Your task to perform on an android device: What's the weather going to be this weekend? Image 0: 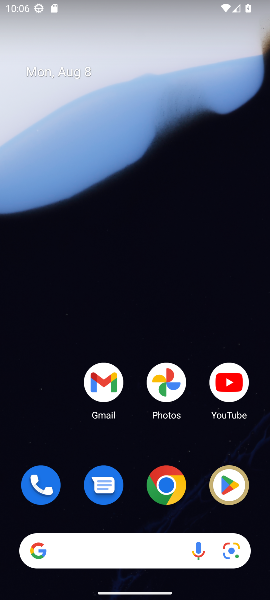
Step 0: drag from (201, 446) to (203, 42)
Your task to perform on an android device: What's the weather going to be this weekend? Image 1: 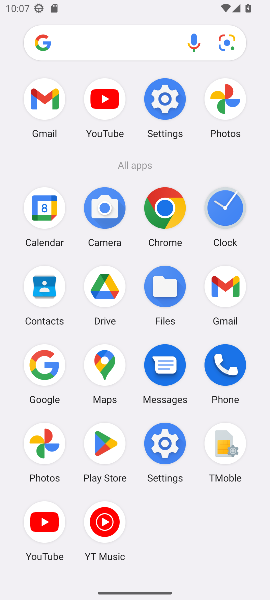
Step 1: click (169, 204)
Your task to perform on an android device: What's the weather going to be this weekend? Image 2: 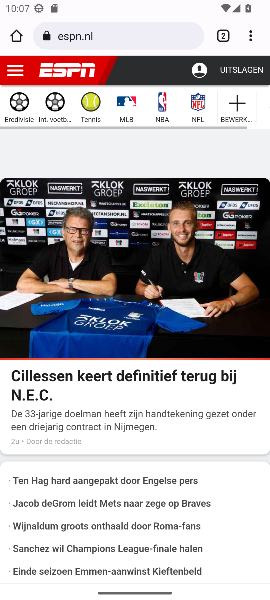
Step 2: click (140, 33)
Your task to perform on an android device: What's the weather going to be this weekend? Image 3: 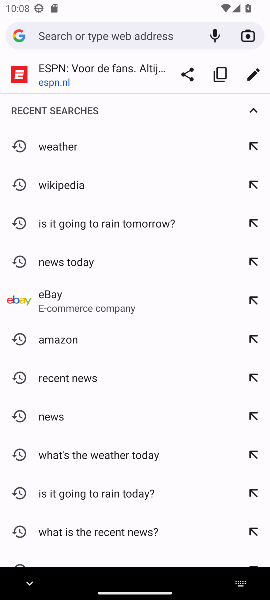
Step 3: type "What's the weather going to be this weekend?"
Your task to perform on an android device: What's the weather going to be this weekend? Image 4: 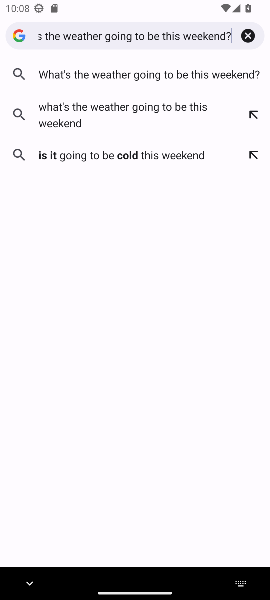
Step 4: click (129, 78)
Your task to perform on an android device: What's the weather going to be this weekend? Image 5: 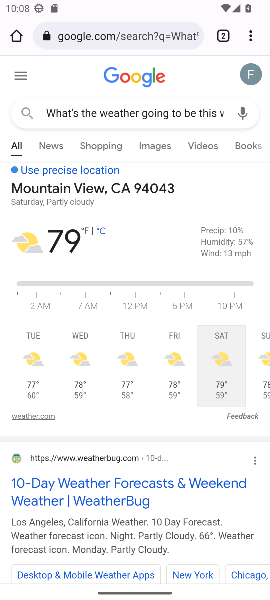
Step 5: task complete